Your task to perform on an android device: check data usage Image 0: 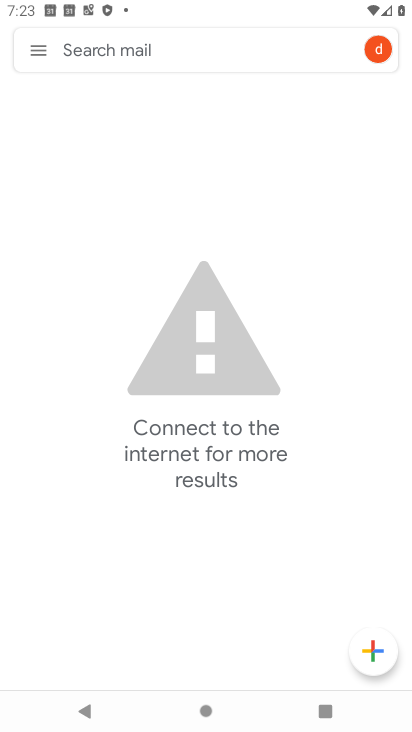
Step 0: press home button
Your task to perform on an android device: check data usage Image 1: 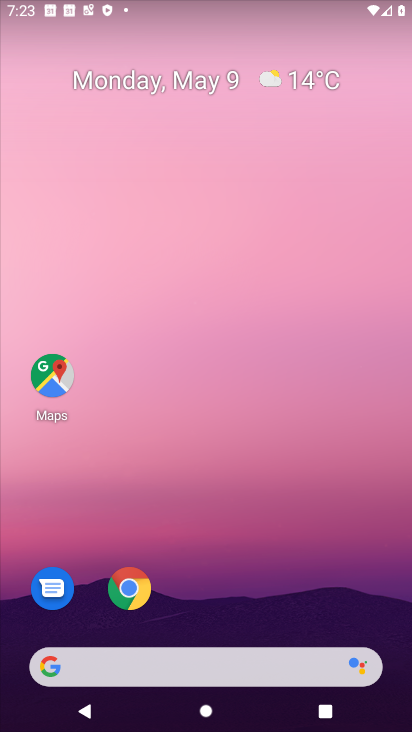
Step 1: drag from (309, 605) to (305, 85)
Your task to perform on an android device: check data usage Image 2: 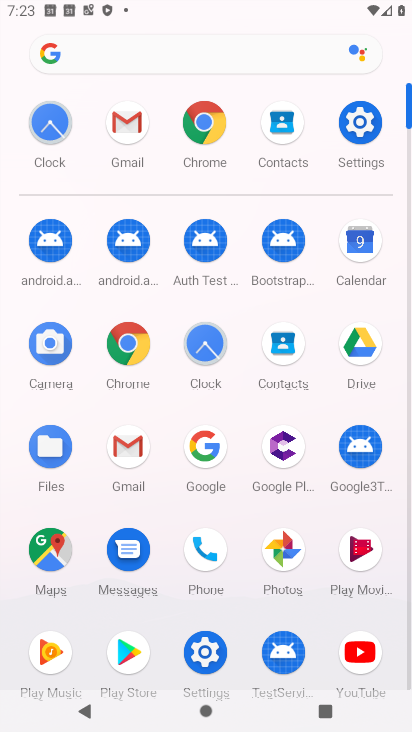
Step 2: click (354, 127)
Your task to perform on an android device: check data usage Image 3: 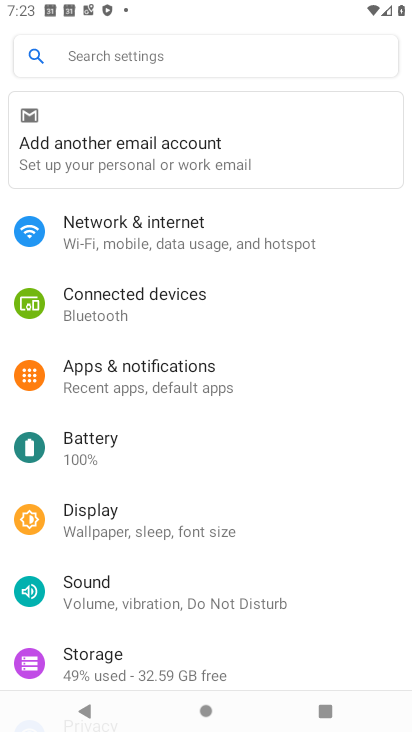
Step 3: click (167, 242)
Your task to perform on an android device: check data usage Image 4: 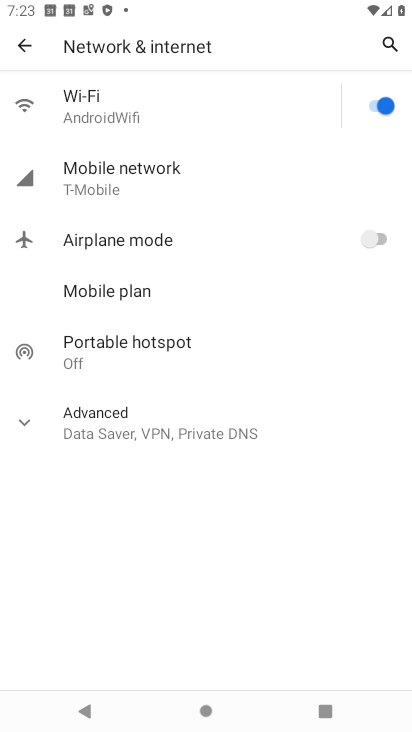
Step 4: click (149, 181)
Your task to perform on an android device: check data usage Image 5: 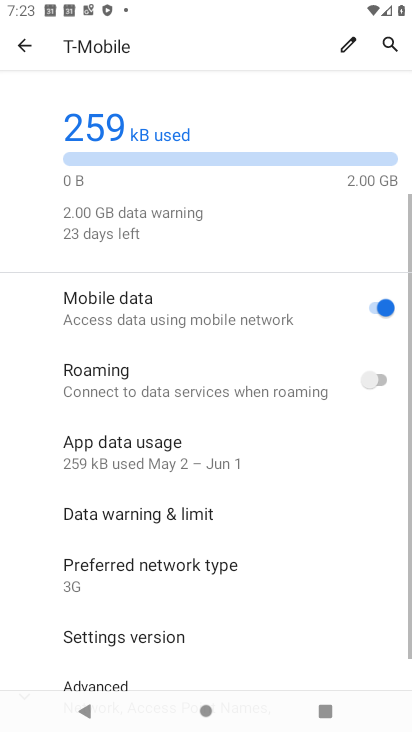
Step 5: click (171, 441)
Your task to perform on an android device: check data usage Image 6: 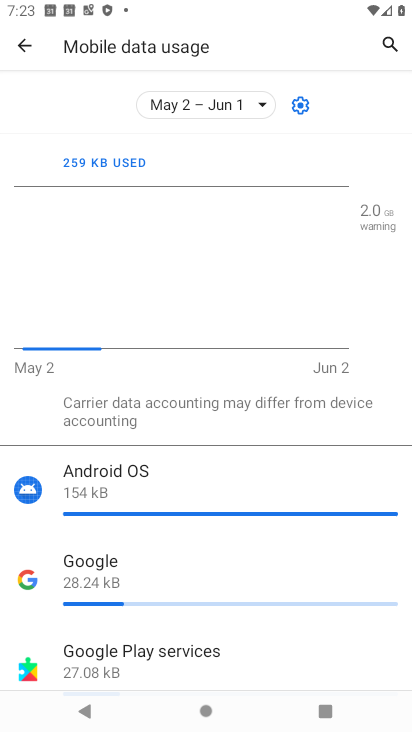
Step 6: task complete